Your task to perform on an android device: Do I have any events this weekend? Image 0: 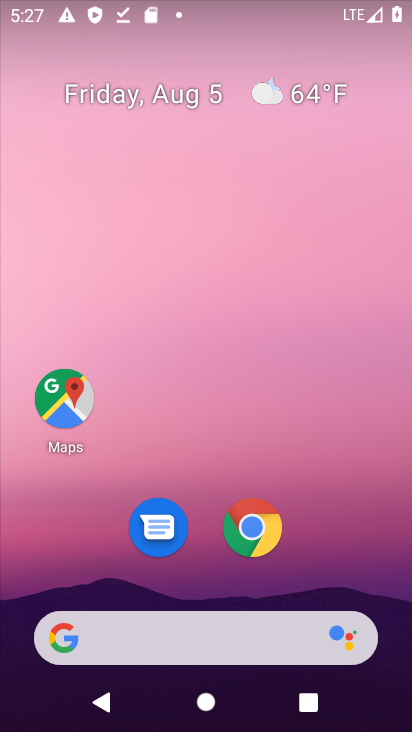
Step 0: drag from (219, 519) to (299, 142)
Your task to perform on an android device: Do I have any events this weekend? Image 1: 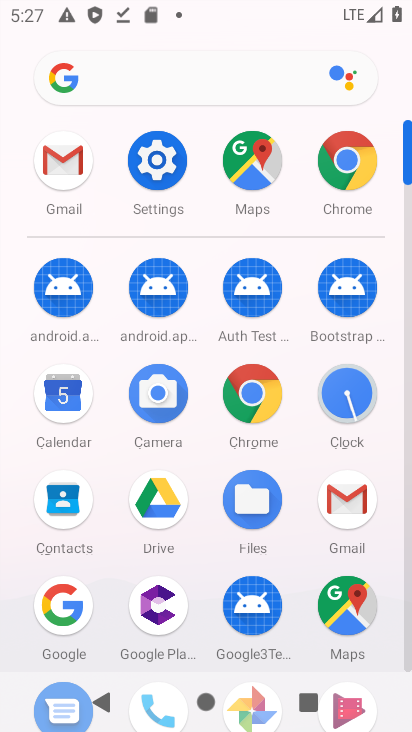
Step 1: click (51, 403)
Your task to perform on an android device: Do I have any events this weekend? Image 2: 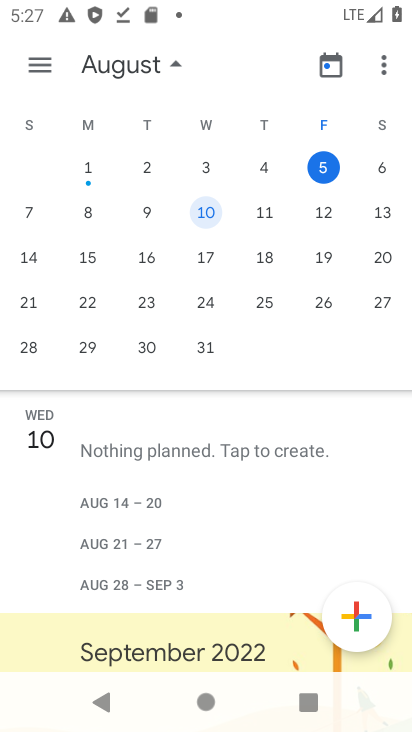
Step 2: click (384, 167)
Your task to perform on an android device: Do I have any events this weekend? Image 3: 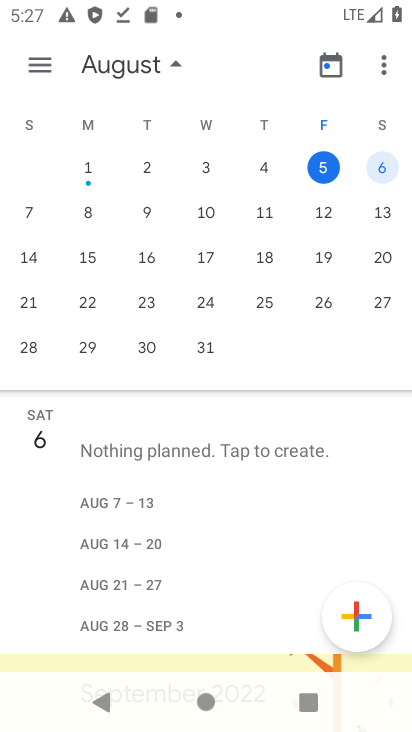
Step 3: task complete